Your task to perform on an android device: Open the calendar and show me this week's events? Image 0: 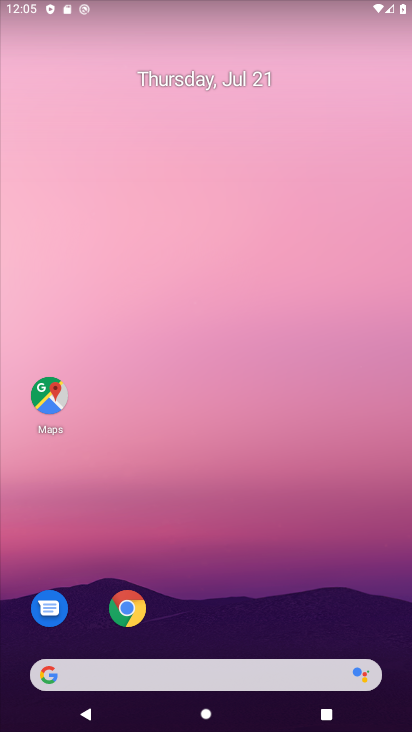
Step 0: drag from (228, 626) to (229, 82)
Your task to perform on an android device: Open the calendar and show me this week's events? Image 1: 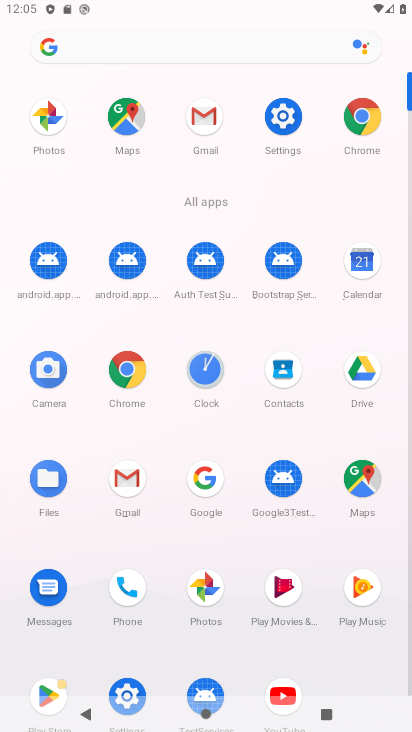
Step 1: click (356, 253)
Your task to perform on an android device: Open the calendar and show me this week's events? Image 2: 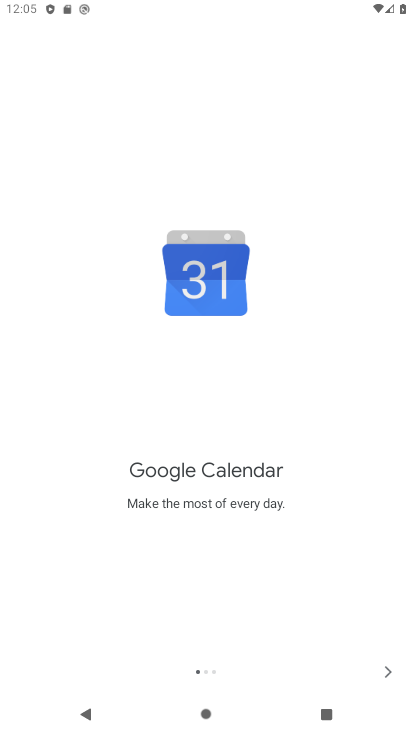
Step 2: click (376, 663)
Your task to perform on an android device: Open the calendar and show me this week's events? Image 3: 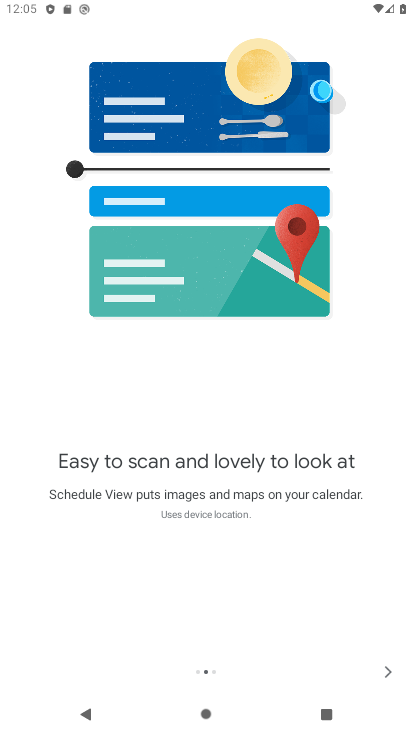
Step 3: click (380, 667)
Your task to perform on an android device: Open the calendar and show me this week's events? Image 4: 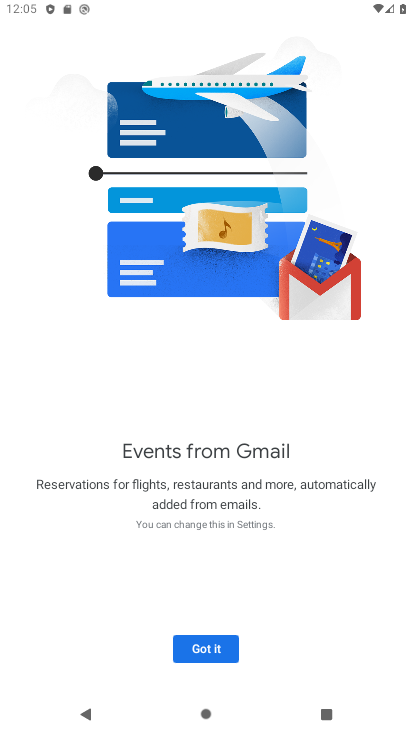
Step 4: click (214, 643)
Your task to perform on an android device: Open the calendar and show me this week's events? Image 5: 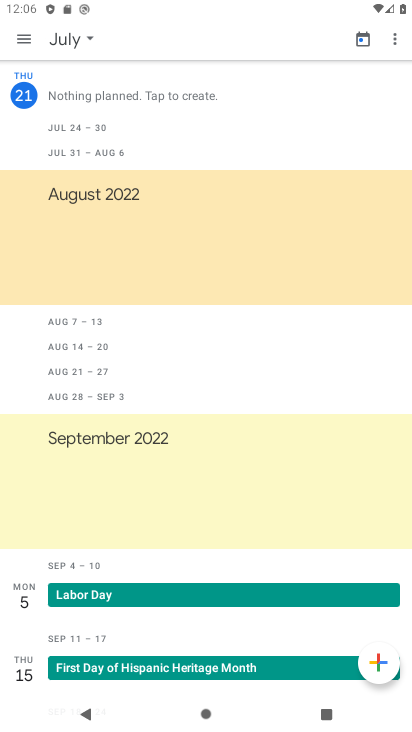
Step 5: click (18, 39)
Your task to perform on an android device: Open the calendar and show me this week's events? Image 6: 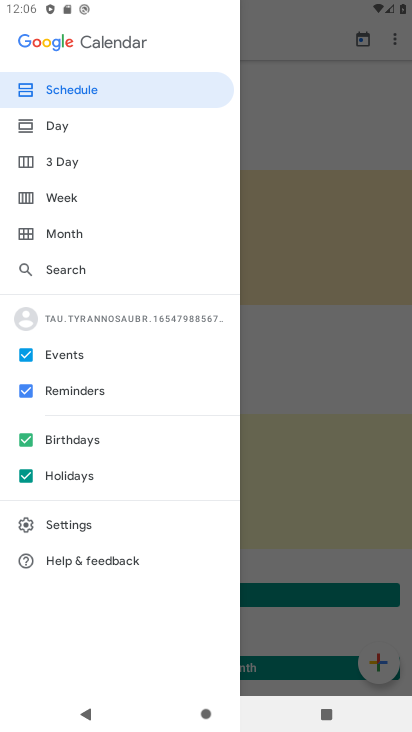
Step 6: click (53, 195)
Your task to perform on an android device: Open the calendar and show me this week's events? Image 7: 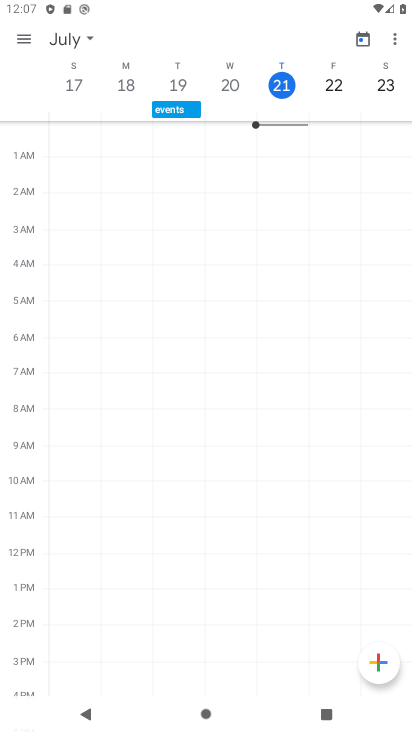
Step 7: task complete